Your task to perform on an android device: Go to network settings Image 0: 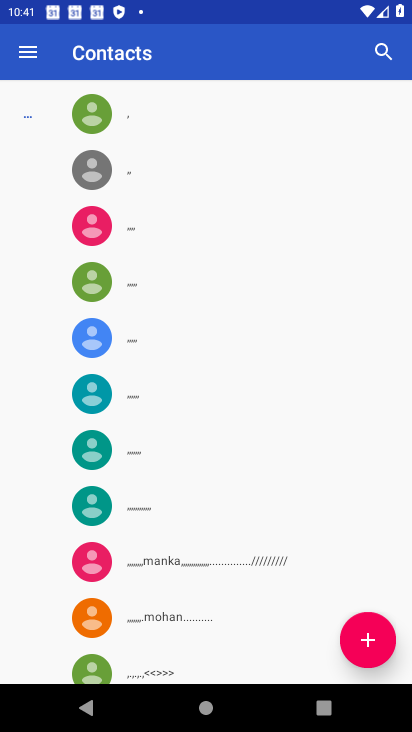
Step 0: press home button
Your task to perform on an android device: Go to network settings Image 1: 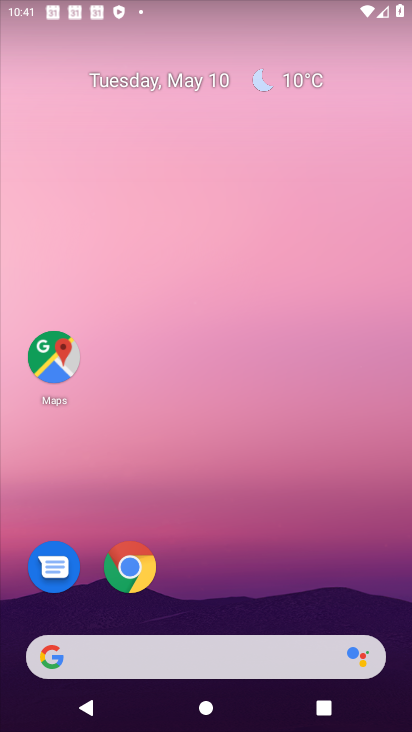
Step 1: drag from (231, 674) to (209, 11)
Your task to perform on an android device: Go to network settings Image 2: 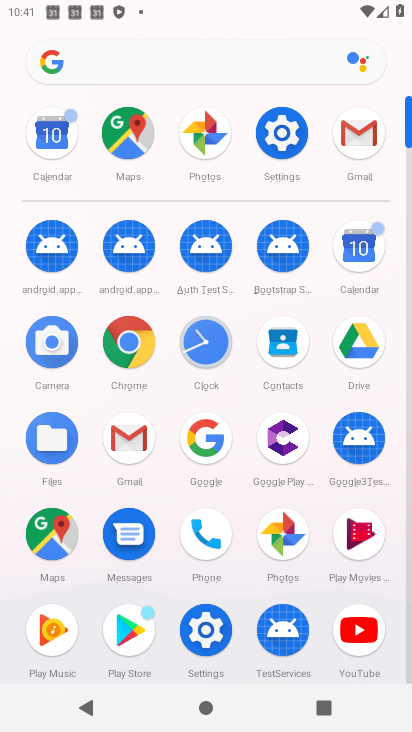
Step 2: click (268, 124)
Your task to perform on an android device: Go to network settings Image 3: 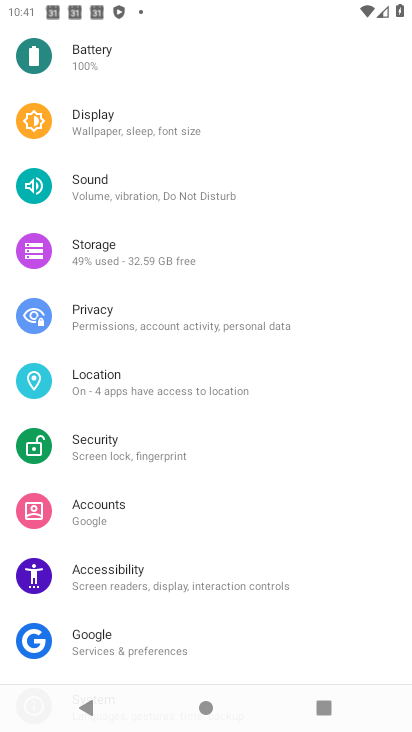
Step 3: drag from (239, 224) to (312, 626)
Your task to perform on an android device: Go to network settings Image 4: 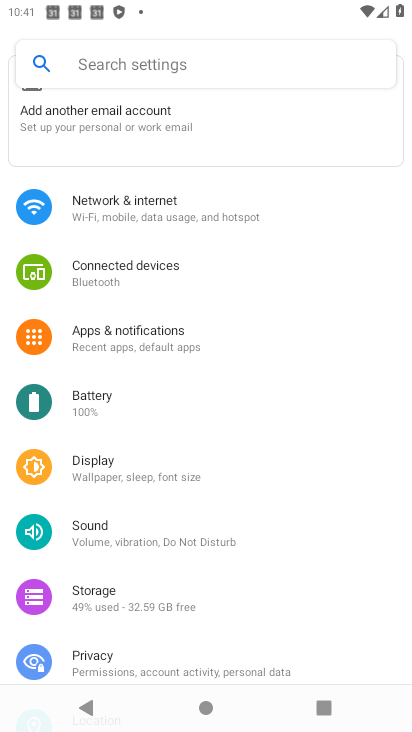
Step 4: click (185, 205)
Your task to perform on an android device: Go to network settings Image 5: 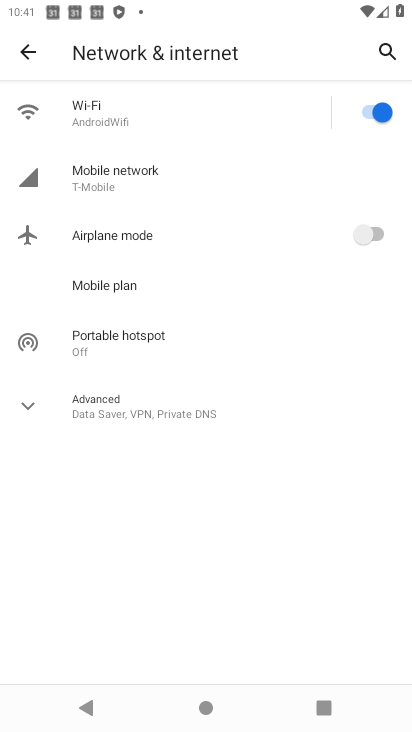
Step 5: task complete